Your task to perform on an android device: turn pop-ups off in chrome Image 0: 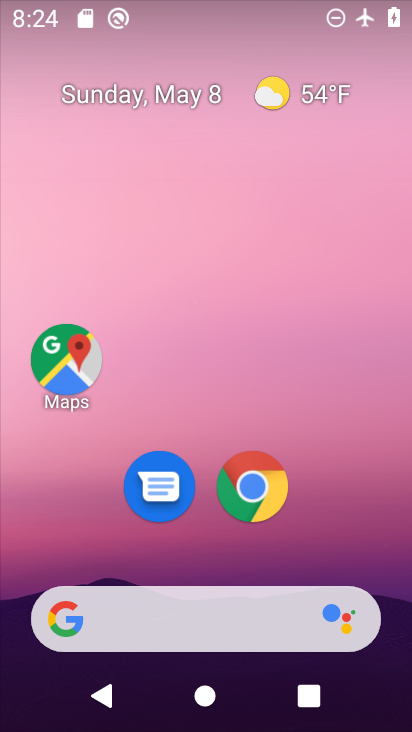
Step 0: drag from (131, 249) to (288, 249)
Your task to perform on an android device: turn pop-ups off in chrome Image 1: 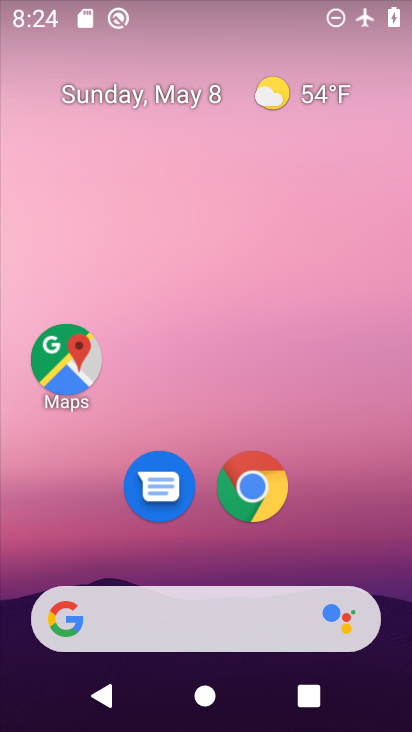
Step 1: click (246, 485)
Your task to perform on an android device: turn pop-ups off in chrome Image 2: 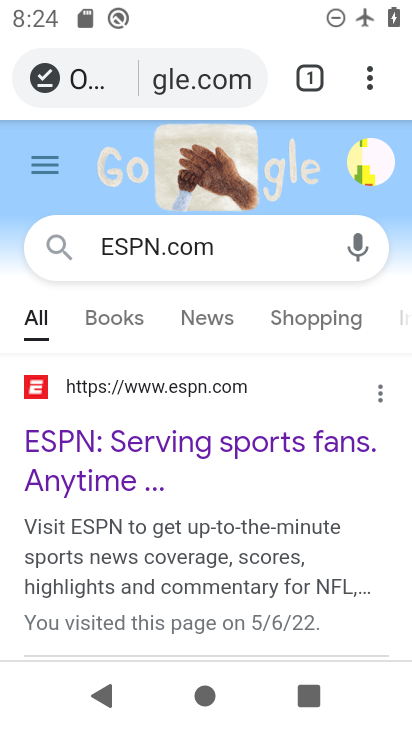
Step 2: click (368, 79)
Your task to perform on an android device: turn pop-ups off in chrome Image 3: 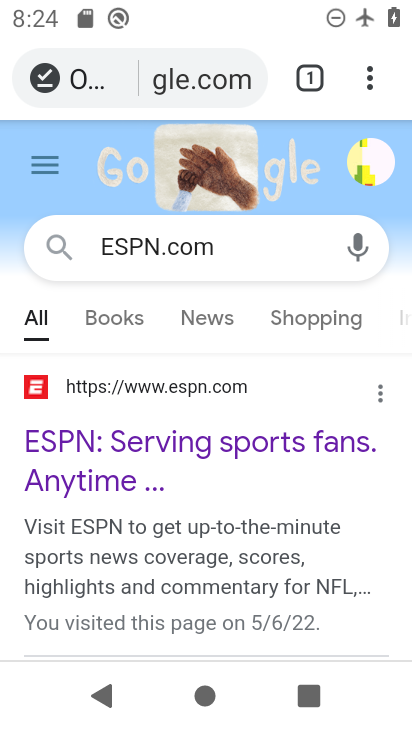
Step 3: click (368, 79)
Your task to perform on an android device: turn pop-ups off in chrome Image 4: 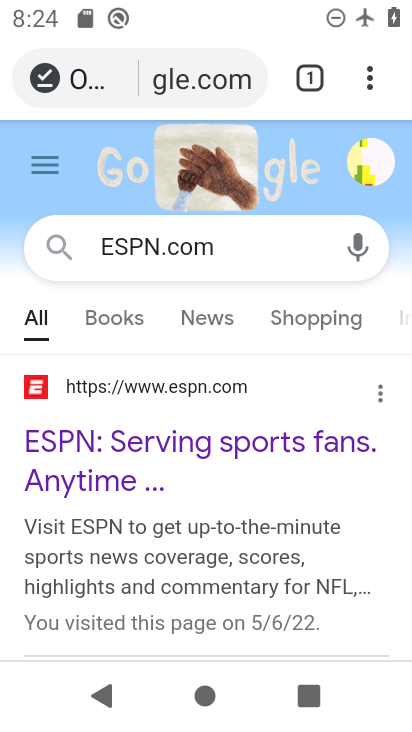
Step 4: click (379, 79)
Your task to perform on an android device: turn pop-ups off in chrome Image 5: 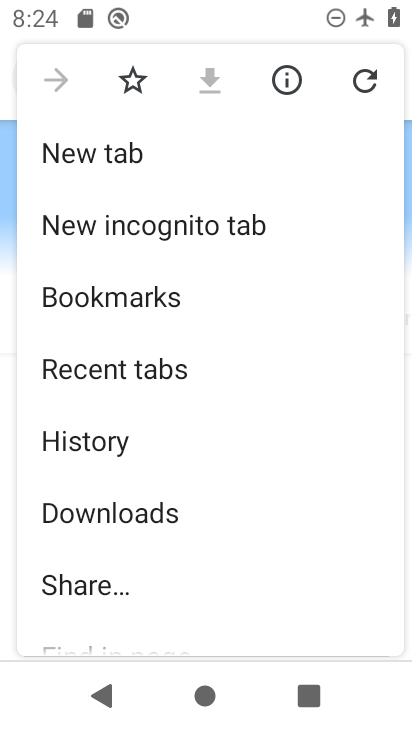
Step 5: drag from (204, 516) to (245, 208)
Your task to perform on an android device: turn pop-ups off in chrome Image 6: 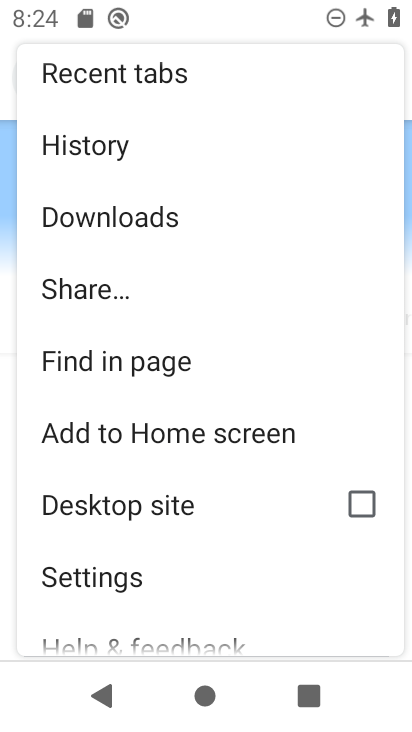
Step 6: click (105, 581)
Your task to perform on an android device: turn pop-ups off in chrome Image 7: 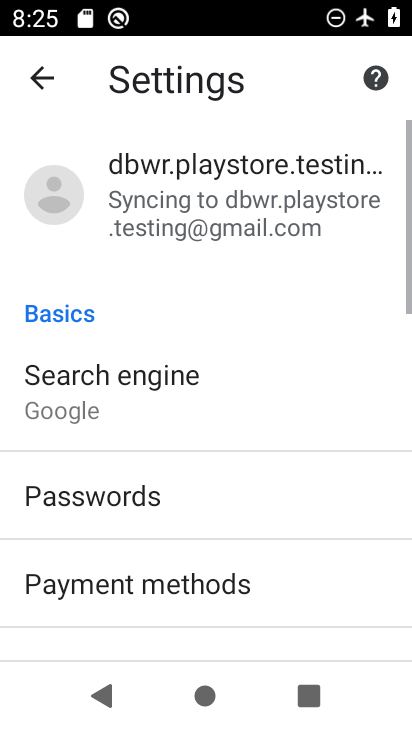
Step 7: drag from (218, 537) to (261, 128)
Your task to perform on an android device: turn pop-ups off in chrome Image 8: 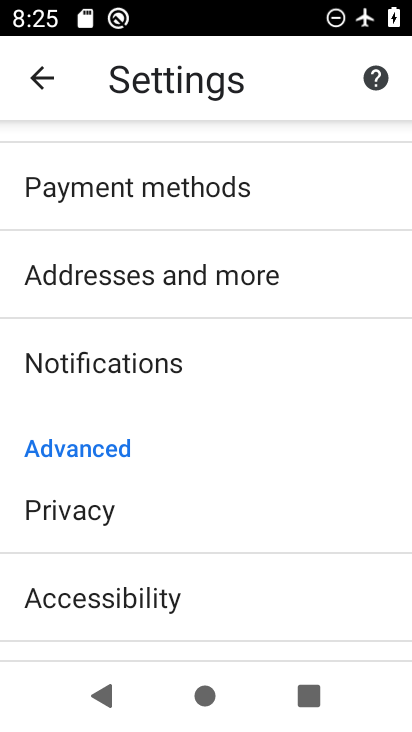
Step 8: drag from (174, 522) to (209, 191)
Your task to perform on an android device: turn pop-ups off in chrome Image 9: 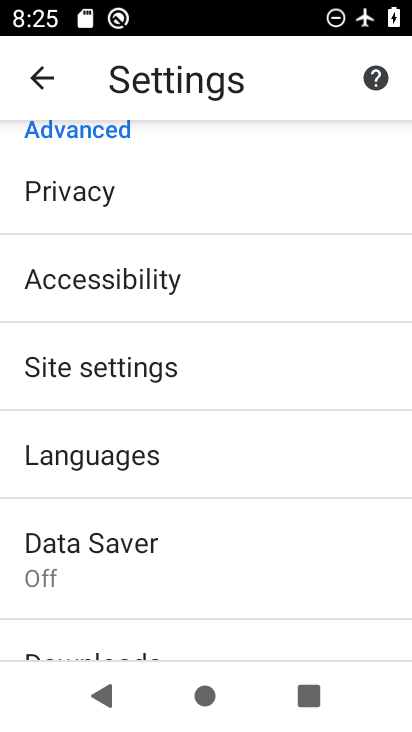
Step 9: click (111, 378)
Your task to perform on an android device: turn pop-ups off in chrome Image 10: 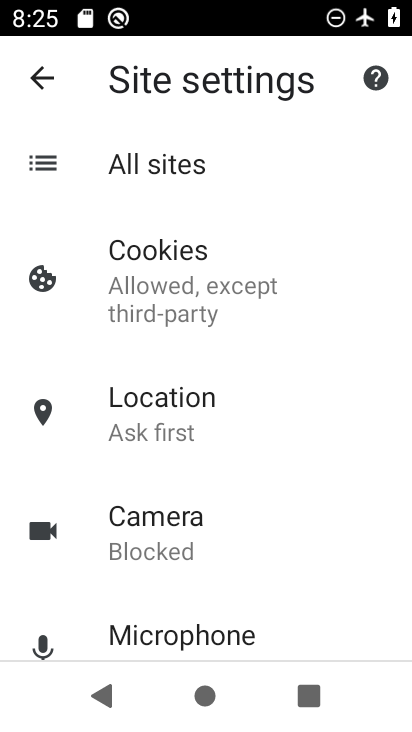
Step 10: drag from (227, 525) to (268, 183)
Your task to perform on an android device: turn pop-ups off in chrome Image 11: 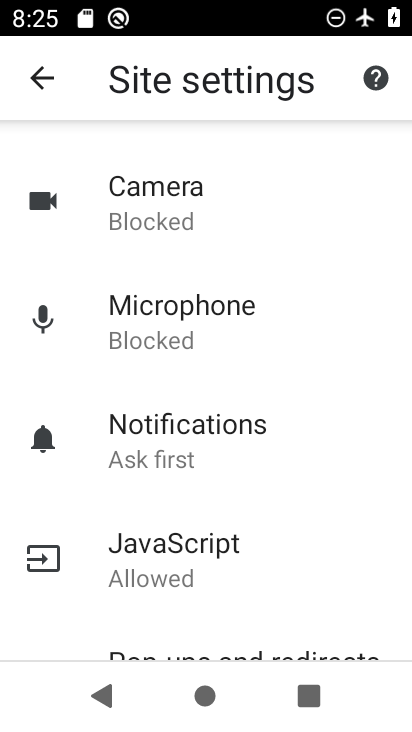
Step 11: drag from (183, 592) to (222, 221)
Your task to perform on an android device: turn pop-ups off in chrome Image 12: 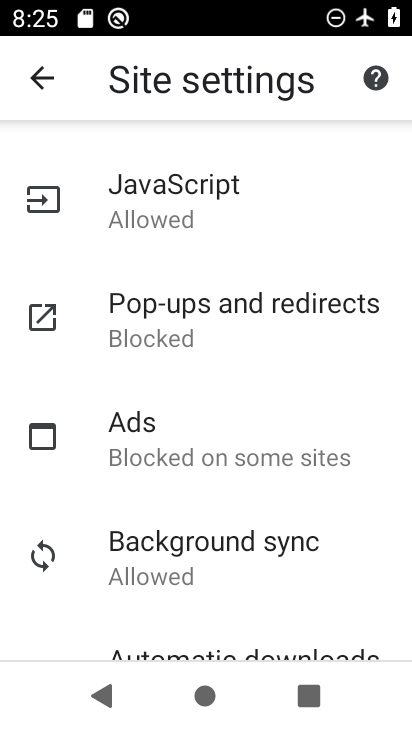
Step 12: click (193, 328)
Your task to perform on an android device: turn pop-ups off in chrome Image 13: 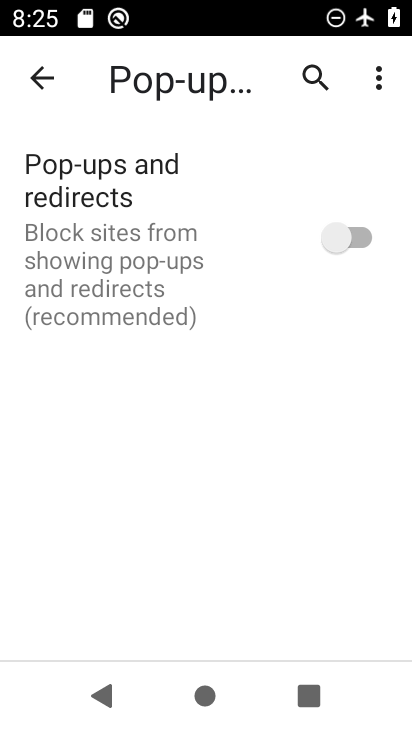
Step 13: task complete